Your task to perform on an android device: Open accessibility settings Image 0: 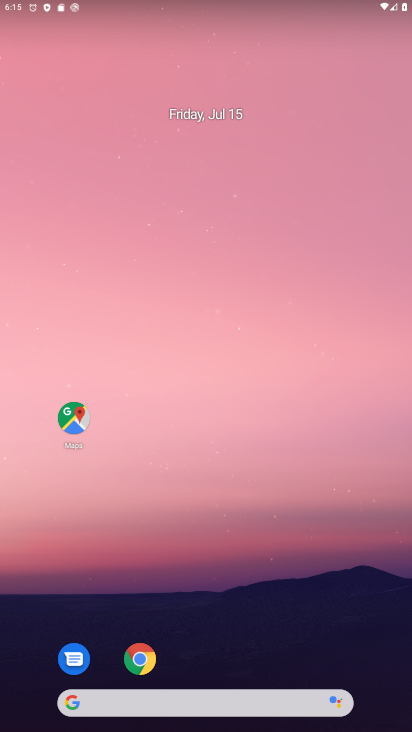
Step 0: drag from (381, 620) to (289, 169)
Your task to perform on an android device: Open accessibility settings Image 1: 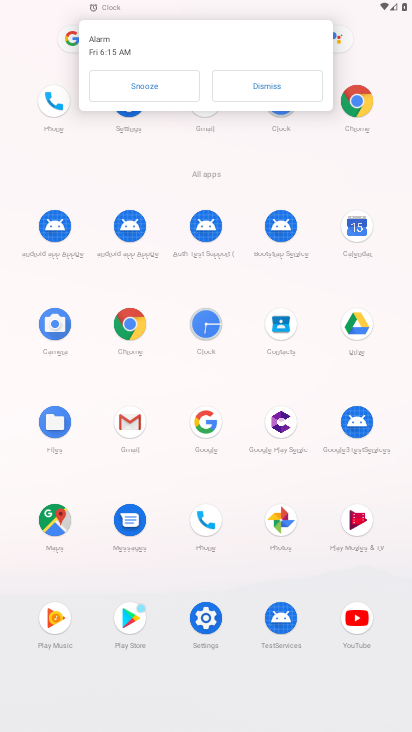
Step 1: click (204, 619)
Your task to perform on an android device: Open accessibility settings Image 2: 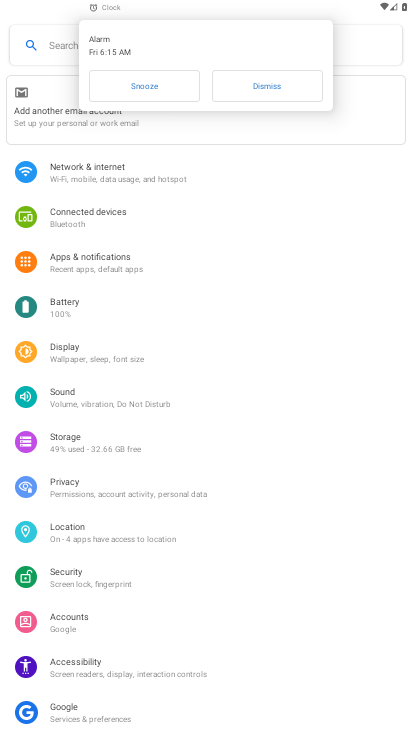
Step 2: drag from (275, 676) to (249, 371)
Your task to perform on an android device: Open accessibility settings Image 3: 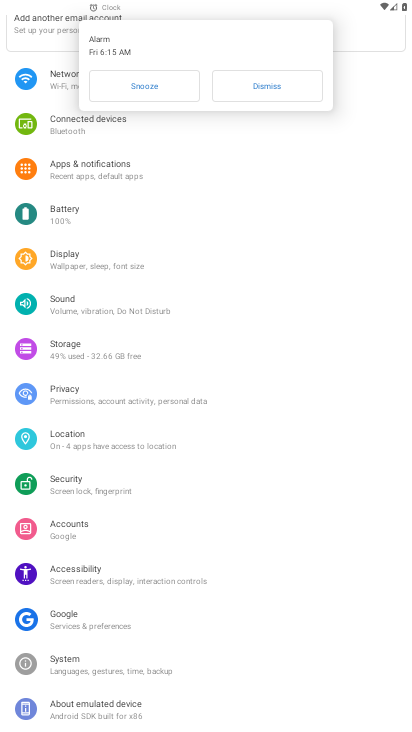
Step 3: click (78, 567)
Your task to perform on an android device: Open accessibility settings Image 4: 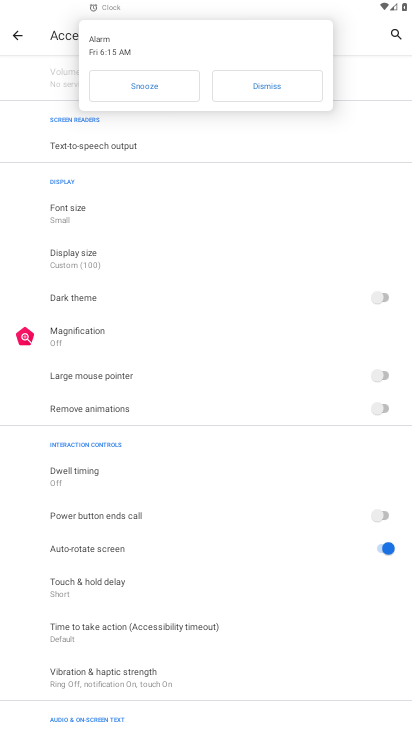
Step 4: drag from (241, 656) to (233, 350)
Your task to perform on an android device: Open accessibility settings Image 5: 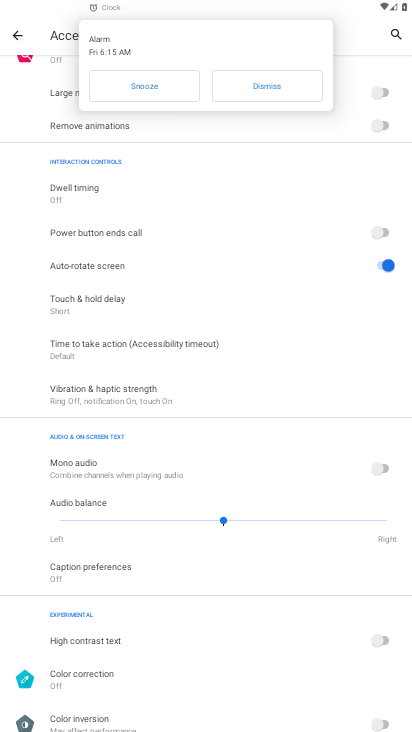
Step 5: click (260, 87)
Your task to perform on an android device: Open accessibility settings Image 6: 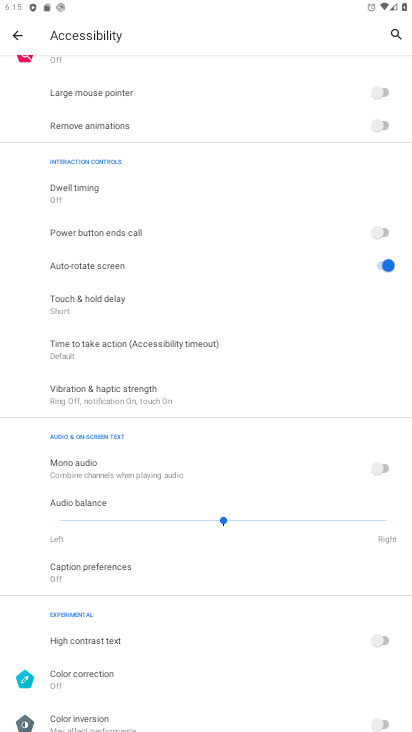
Step 6: task complete